Your task to perform on an android device: change your default location settings in chrome Image 0: 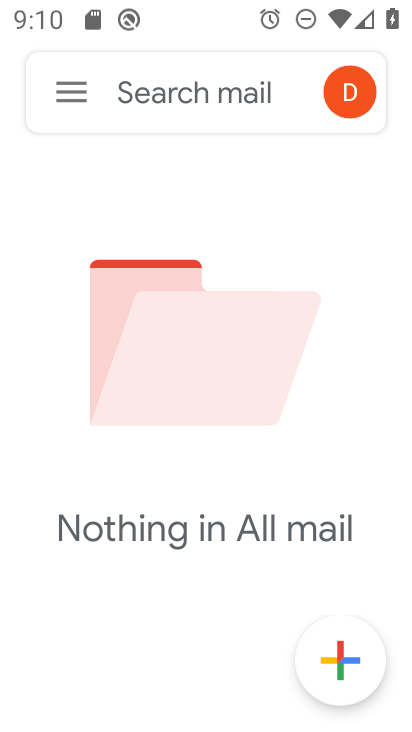
Step 0: press home button
Your task to perform on an android device: change your default location settings in chrome Image 1: 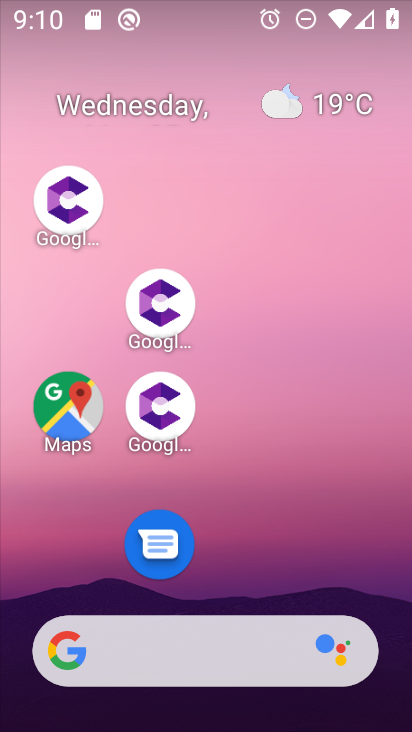
Step 1: drag from (282, 514) to (185, 21)
Your task to perform on an android device: change your default location settings in chrome Image 2: 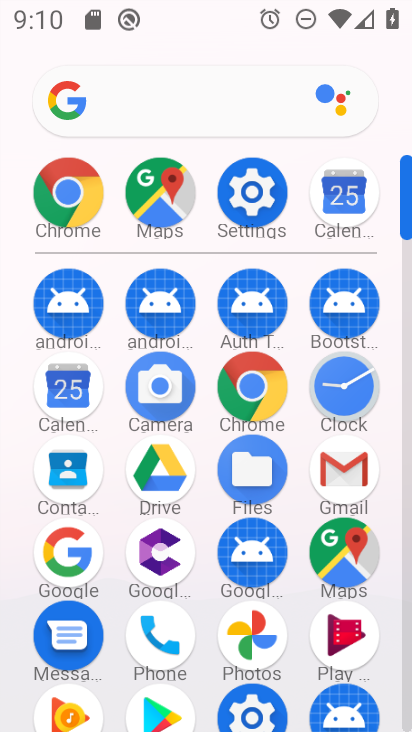
Step 2: click (247, 385)
Your task to perform on an android device: change your default location settings in chrome Image 3: 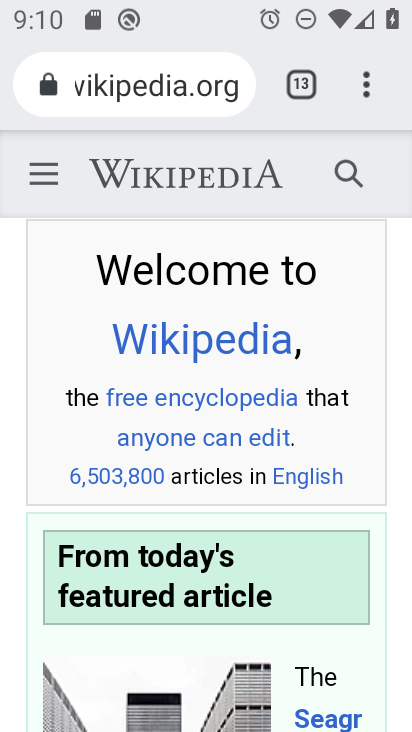
Step 3: click (371, 79)
Your task to perform on an android device: change your default location settings in chrome Image 4: 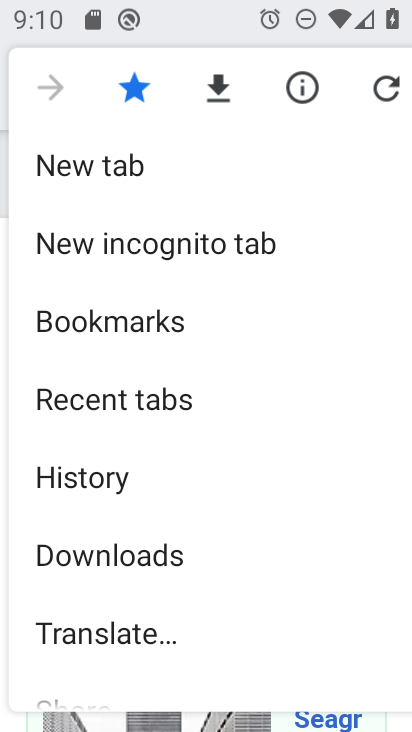
Step 4: drag from (200, 640) to (142, 222)
Your task to perform on an android device: change your default location settings in chrome Image 5: 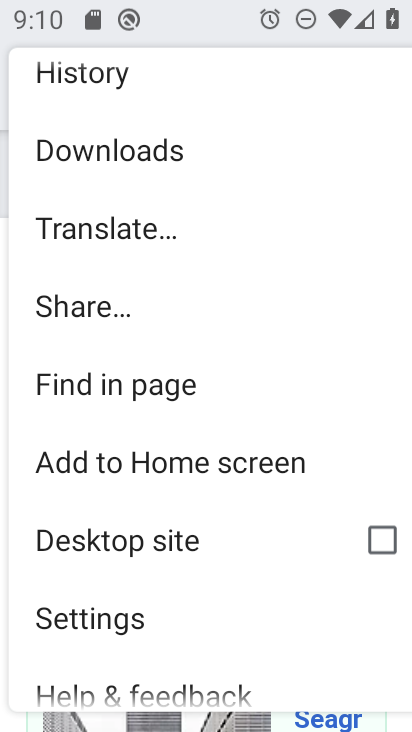
Step 5: click (102, 606)
Your task to perform on an android device: change your default location settings in chrome Image 6: 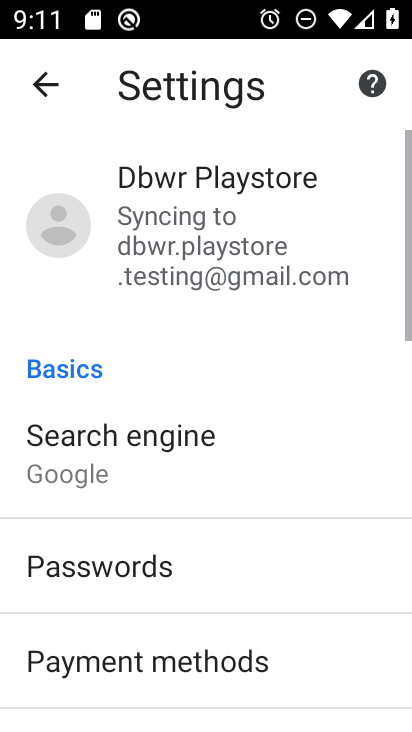
Step 6: drag from (280, 519) to (229, 179)
Your task to perform on an android device: change your default location settings in chrome Image 7: 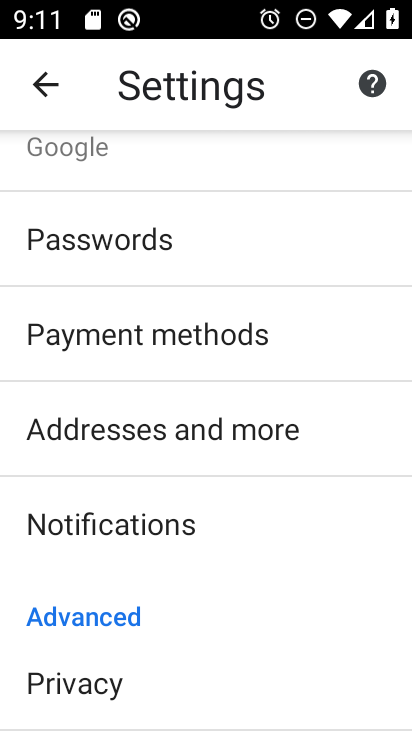
Step 7: drag from (249, 542) to (193, 195)
Your task to perform on an android device: change your default location settings in chrome Image 8: 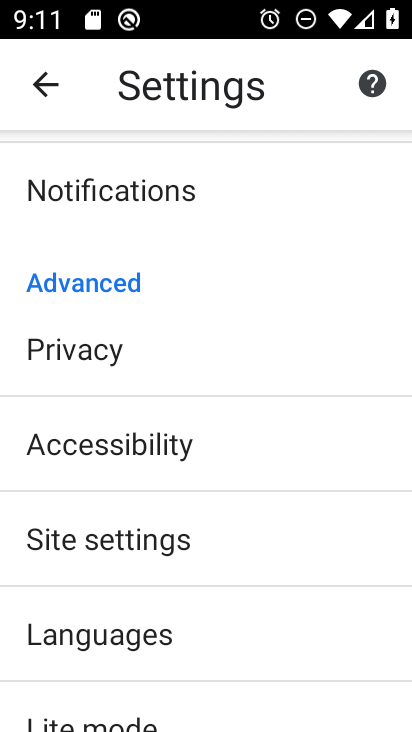
Step 8: click (127, 541)
Your task to perform on an android device: change your default location settings in chrome Image 9: 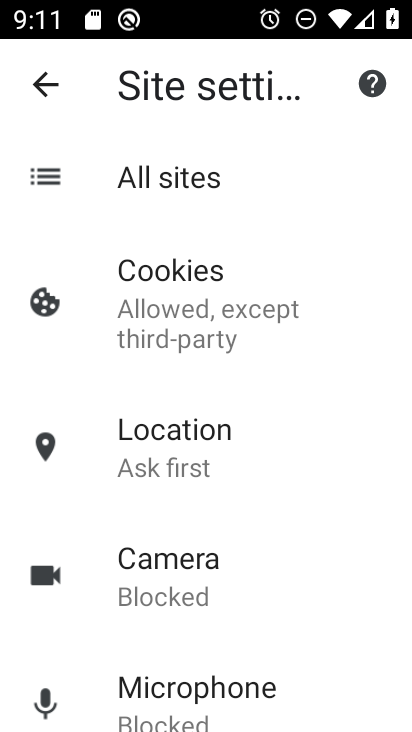
Step 9: click (162, 420)
Your task to perform on an android device: change your default location settings in chrome Image 10: 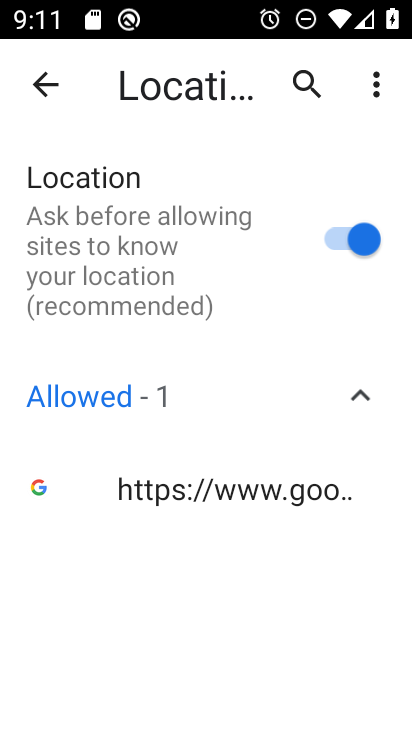
Step 10: click (355, 231)
Your task to perform on an android device: change your default location settings in chrome Image 11: 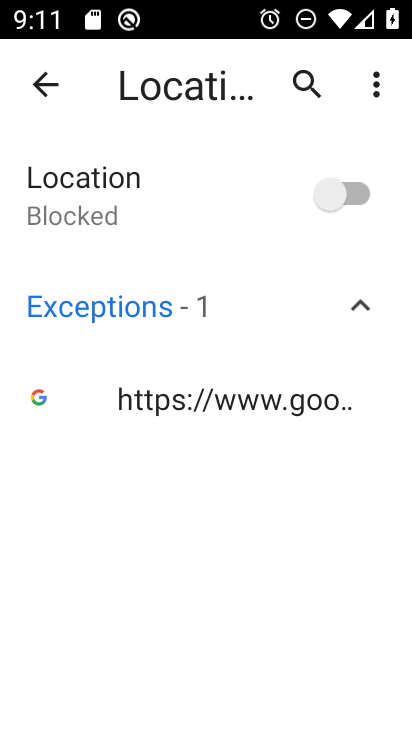
Step 11: task complete